Your task to perform on an android device: Go to network settings Image 0: 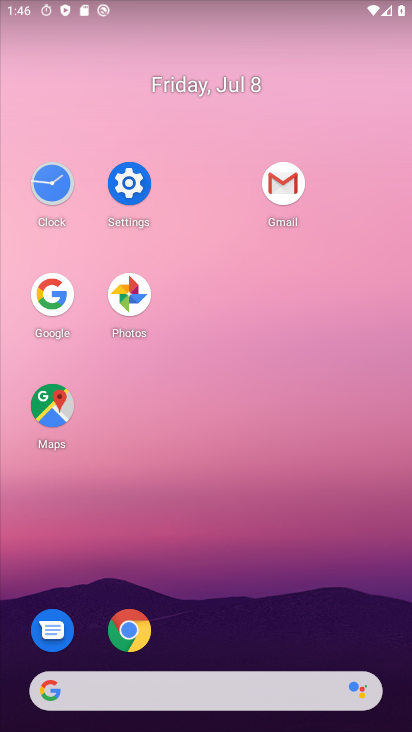
Step 0: click (128, 161)
Your task to perform on an android device: Go to network settings Image 1: 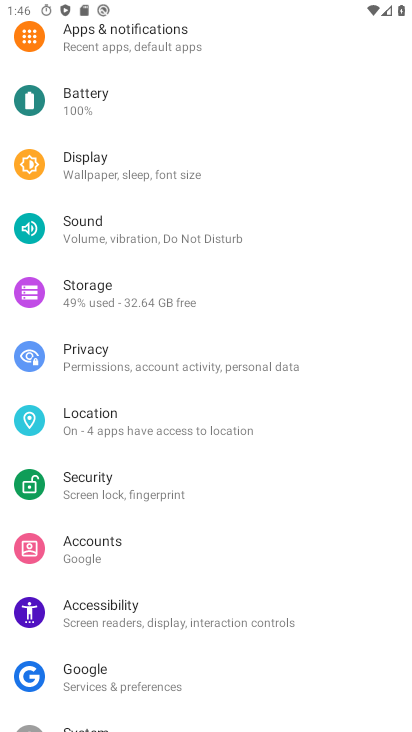
Step 1: drag from (204, 117) to (213, 458)
Your task to perform on an android device: Go to network settings Image 2: 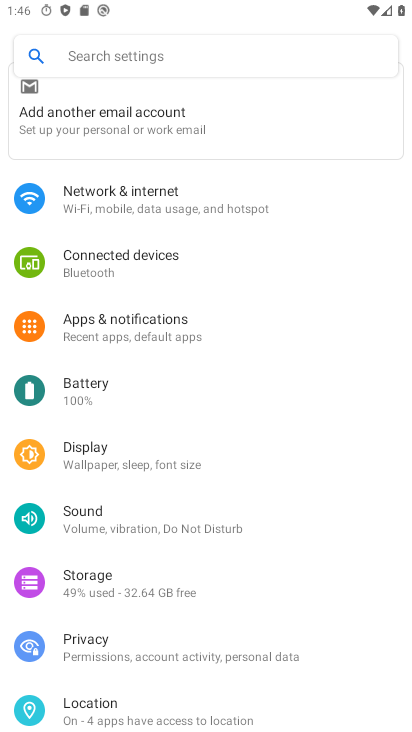
Step 2: click (217, 199)
Your task to perform on an android device: Go to network settings Image 3: 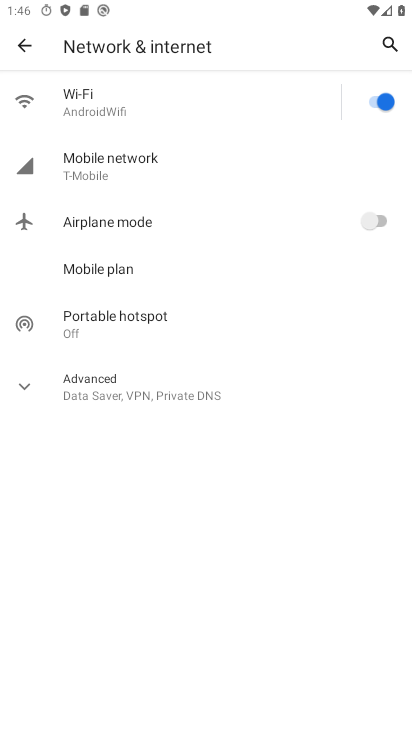
Step 3: click (73, 101)
Your task to perform on an android device: Go to network settings Image 4: 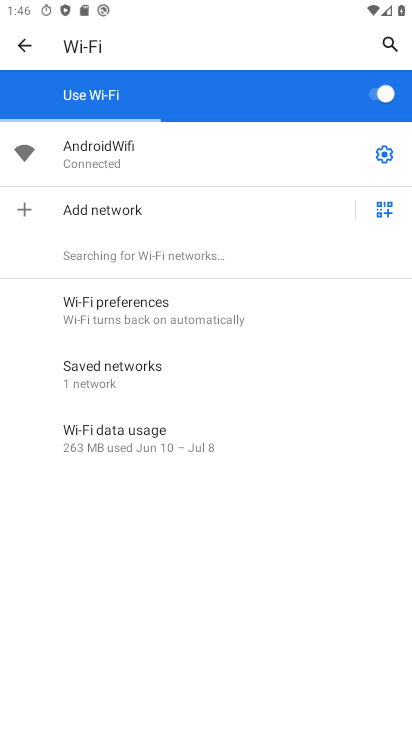
Step 4: click (383, 153)
Your task to perform on an android device: Go to network settings Image 5: 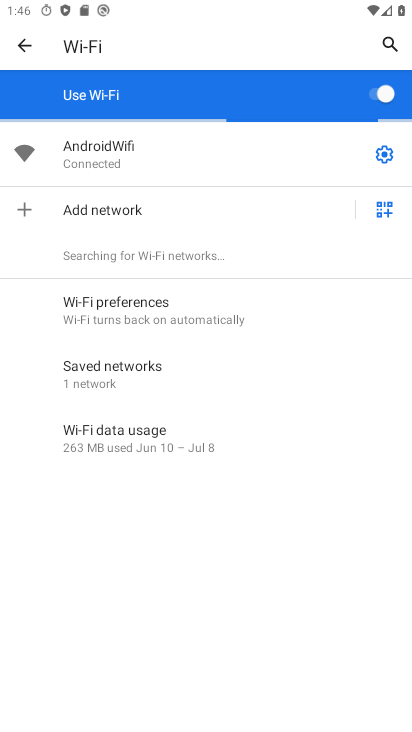
Step 5: task complete